Your task to perform on an android device: Open location settings Image 0: 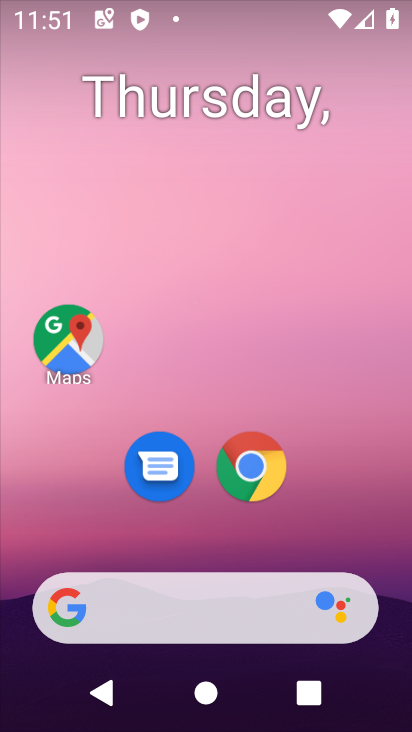
Step 0: drag from (397, 627) to (346, 7)
Your task to perform on an android device: Open location settings Image 1: 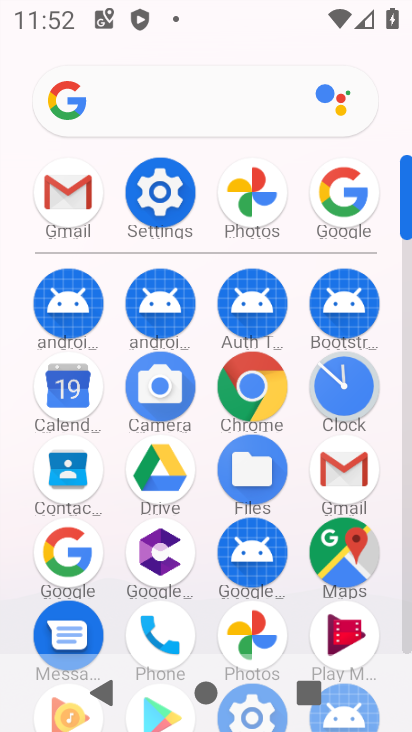
Step 1: click (144, 222)
Your task to perform on an android device: Open location settings Image 2: 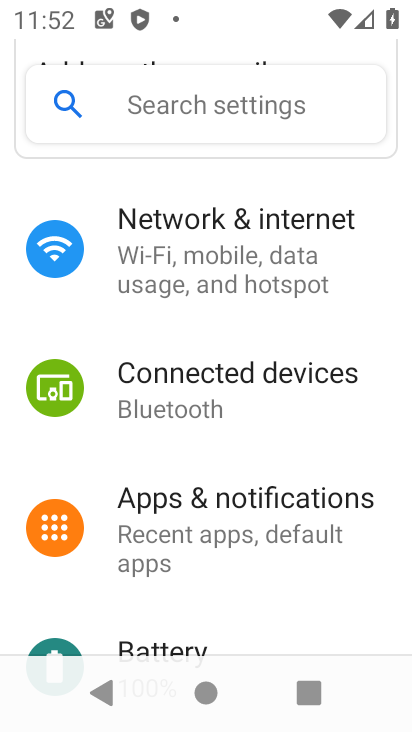
Step 2: drag from (221, 623) to (264, 169)
Your task to perform on an android device: Open location settings Image 3: 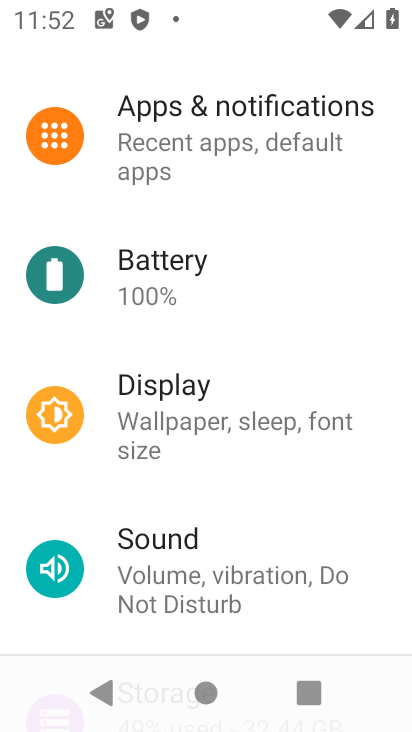
Step 3: drag from (223, 593) to (259, 143)
Your task to perform on an android device: Open location settings Image 4: 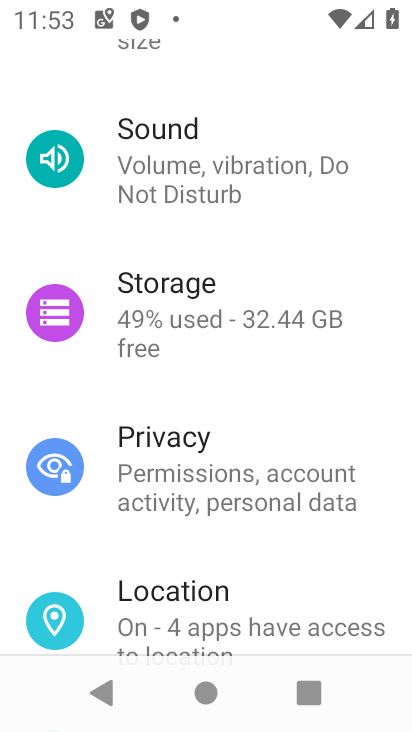
Step 4: click (159, 625)
Your task to perform on an android device: Open location settings Image 5: 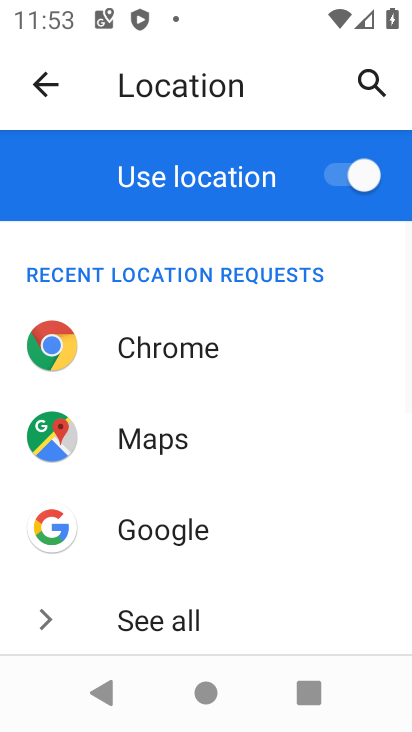
Step 5: task complete